Your task to perform on an android device: turn off improve location accuracy Image 0: 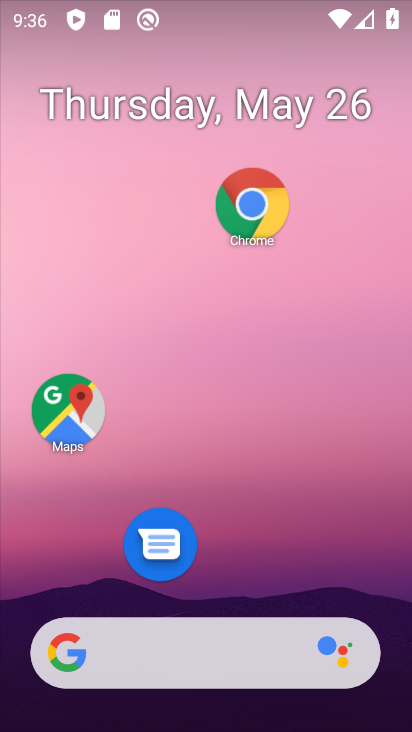
Step 0: drag from (220, 601) to (249, 37)
Your task to perform on an android device: turn off improve location accuracy Image 1: 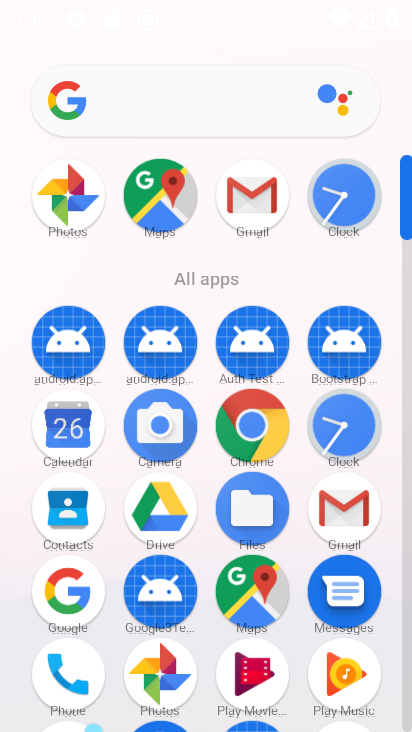
Step 1: drag from (205, 551) to (214, 161)
Your task to perform on an android device: turn off improve location accuracy Image 2: 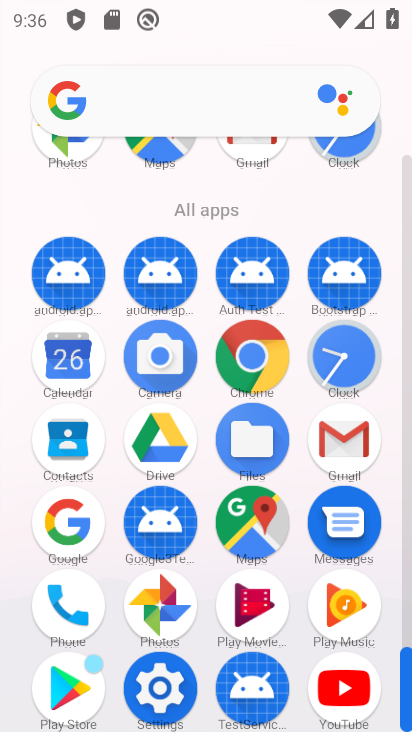
Step 2: click (158, 681)
Your task to perform on an android device: turn off improve location accuracy Image 3: 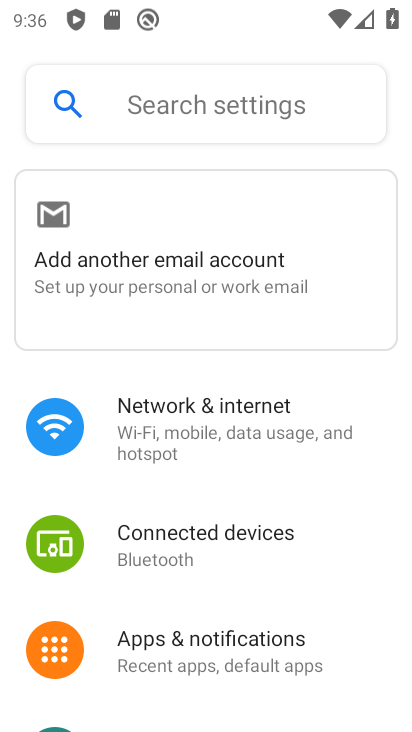
Step 3: drag from (219, 688) to (276, 77)
Your task to perform on an android device: turn off improve location accuracy Image 4: 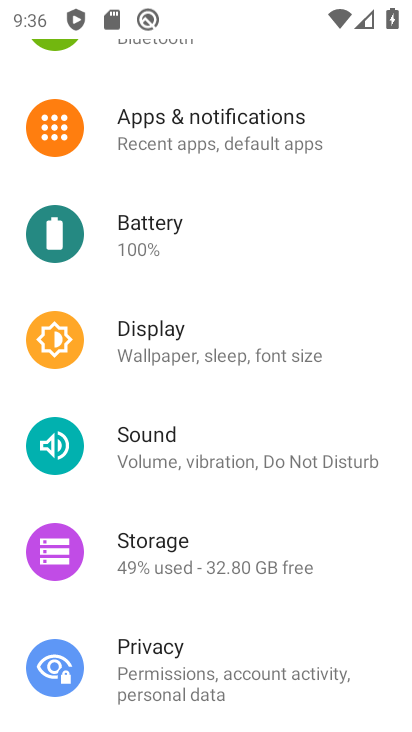
Step 4: drag from (229, 653) to (244, 93)
Your task to perform on an android device: turn off improve location accuracy Image 5: 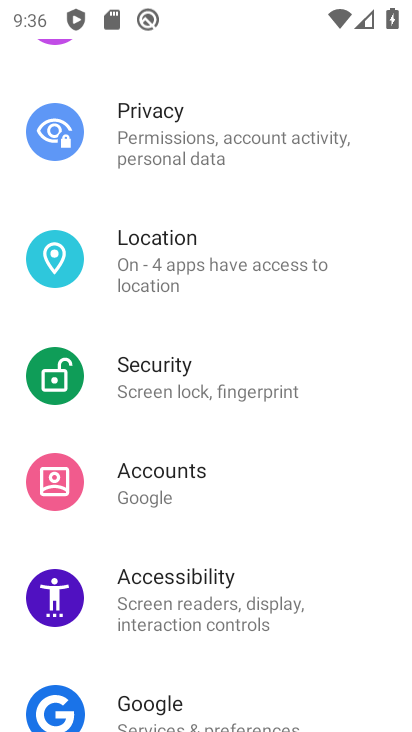
Step 5: click (101, 246)
Your task to perform on an android device: turn off improve location accuracy Image 6: 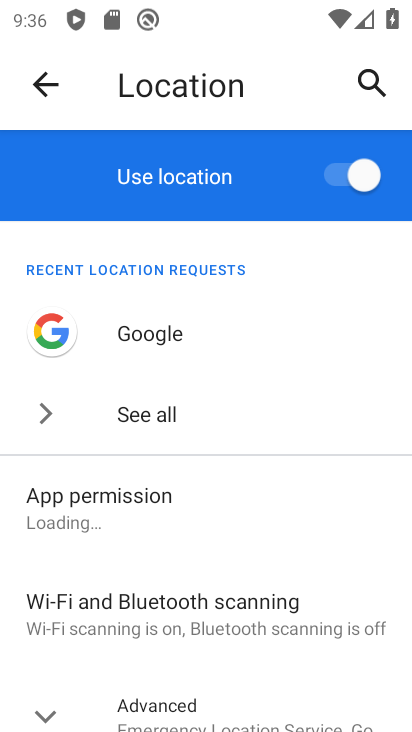
Step 6: click (75, 706)
Your task to perform on an android device: turn off improve location accuracy Image 7: 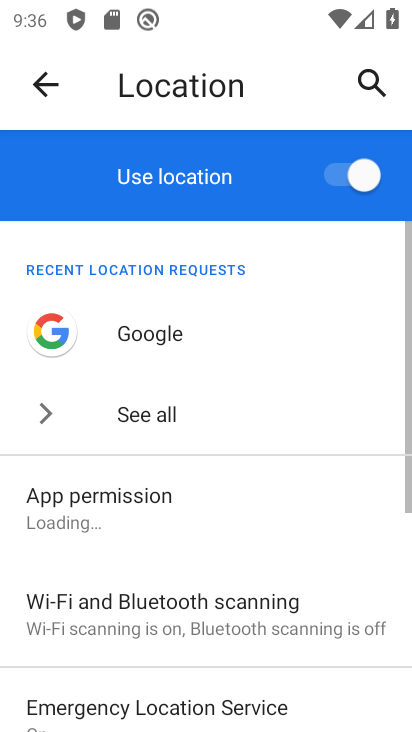
Step 7: drag from (188, 674) to (212, 163)
Your task to perform on an android device: turn off improve location accuracy Image 8: 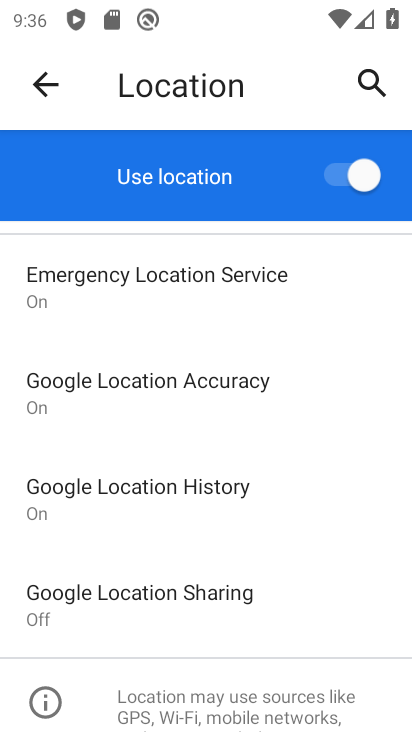
Step 8: click (90, 395)
Your task to perform on an android device: turn off improve location accuracy Image 9: 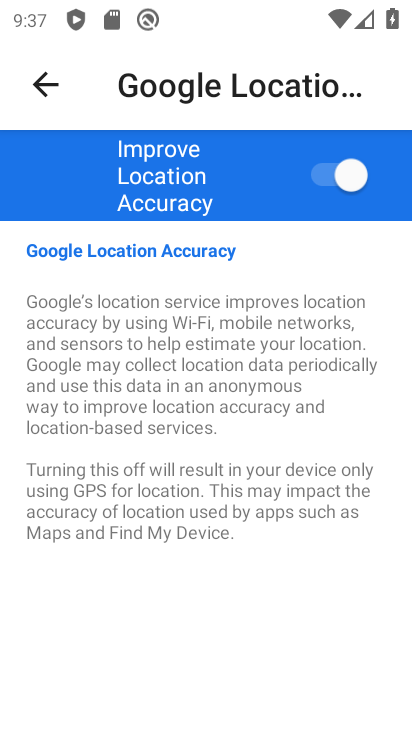
Step 9: click (333, 171)
Your task to perform on an android device: turn off improve location accuracy Image 10: 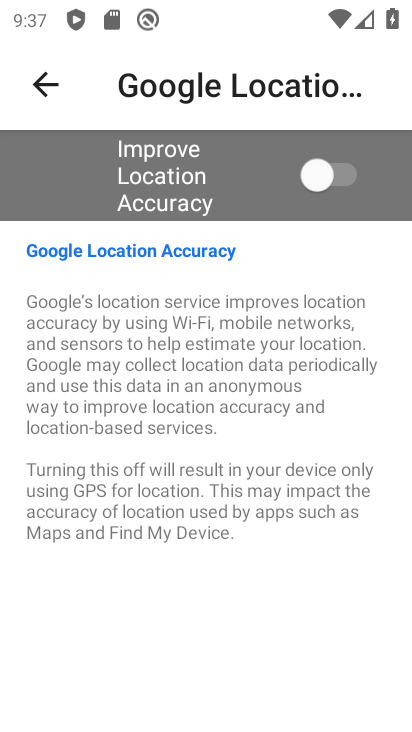
Step 10: task complete